Your task to perform on an android device: turn on sleep mode Image 0: 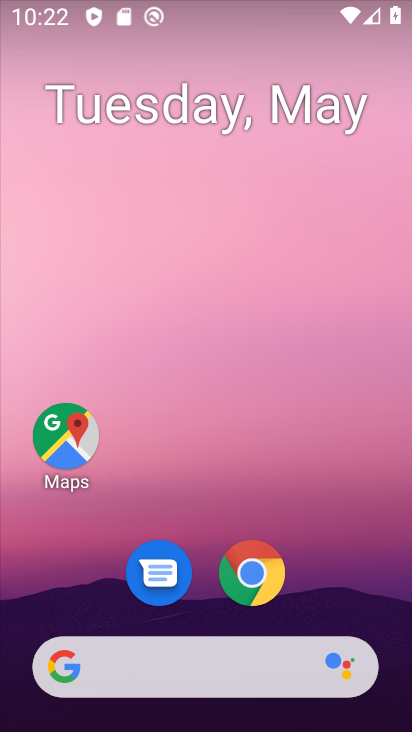
Step 0: drag from (194, 511) to (182, 30)
Your task to perform on an android device: turn on sleep mode Image 1: 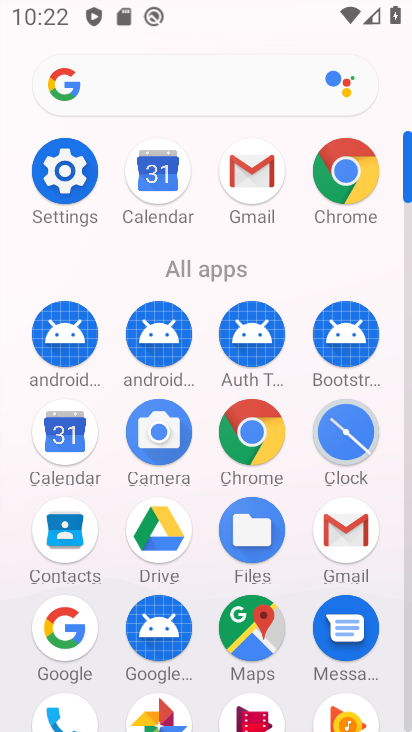
Step 1: drag from (197, 403) to (197, 183)
Your task to perform on an android device: turn on sleep mode Image 2: 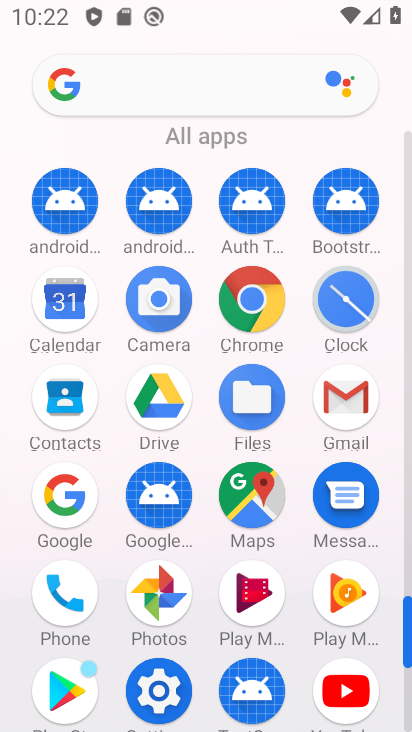
Step 2: click (165, 683)
Your task to perform on an android device: turn on sleep mode Image 3: 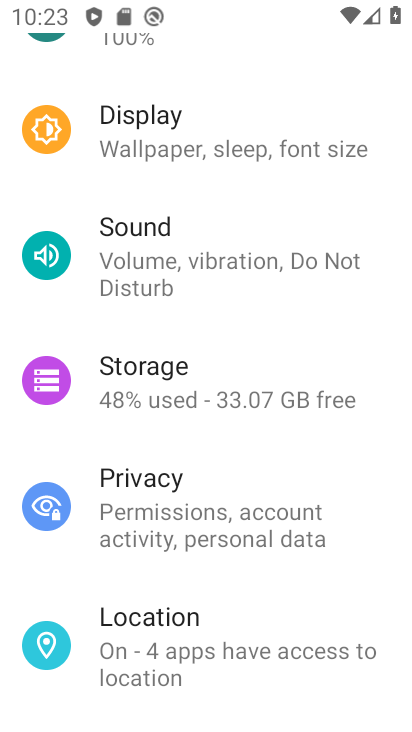
Step 3: task complete